Your task to perform on an android device: Do I have any events tomorrow? Image 0: 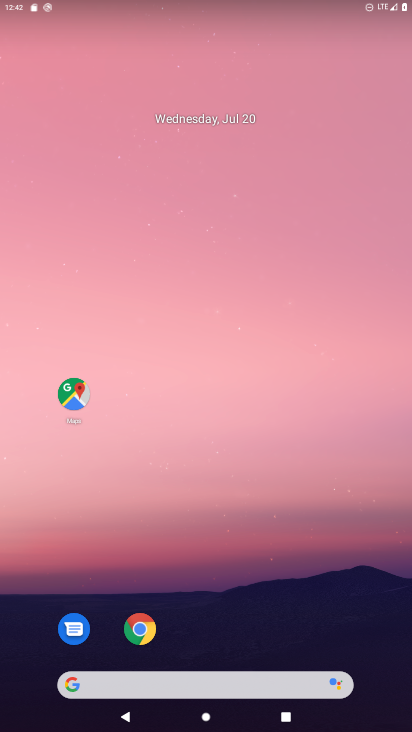
Step 0: drag from (188, 640) to (184, 204)
Your task to perform on an android device: Do I have any events tomorrow? Image 1: 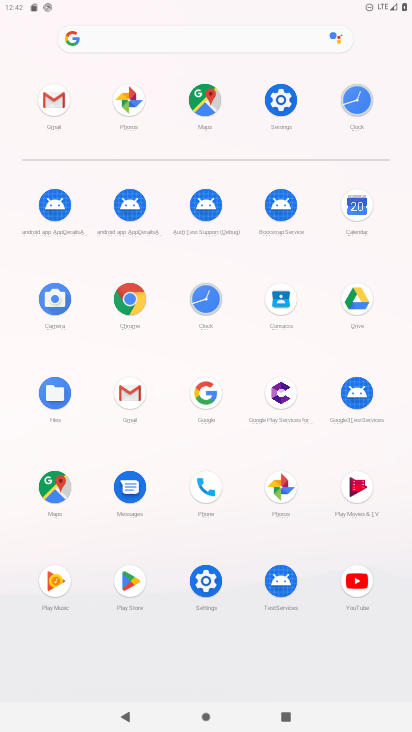
Step 1: click (353, 220)
Your task to perform on an android device: Do I have any events tomorrow? Image 2: 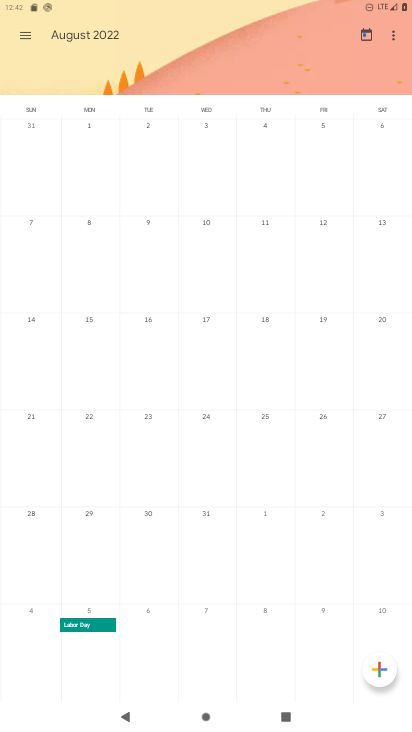
Step 2: click (25, 34)
Your task to perform on an android device: Do I have any events tomorrow? Image 3: 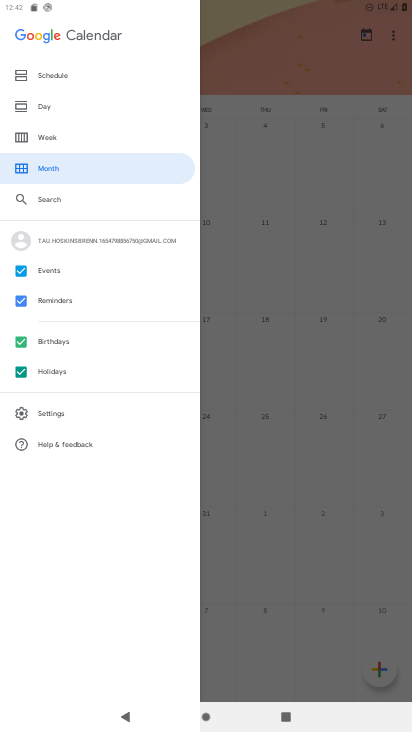
Step 3: click (42, 77)
Your task to perform on an android device: Do I have any events tomorrow? Image 4: 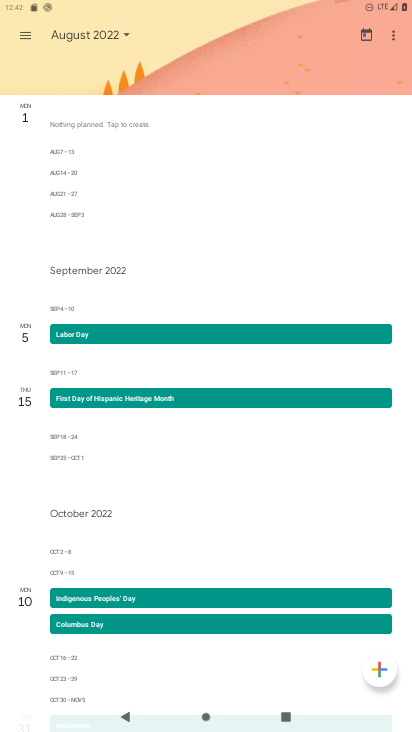
Step 4: click (70, 37)
Your task to perform on an android device: Do I have any events tomorrow? Image 5: 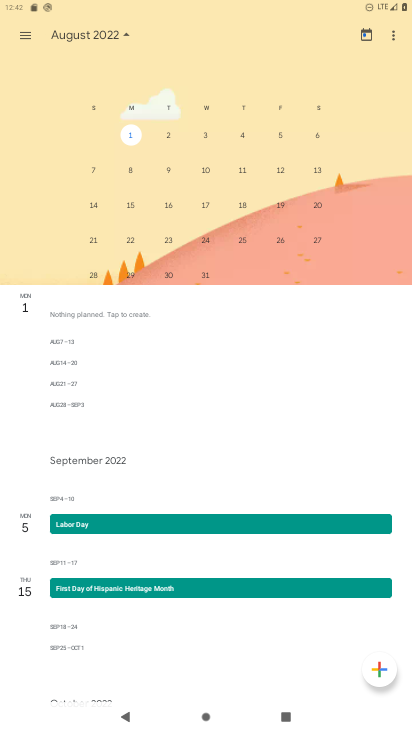
Step 5: drag from (101, 138) to (387, 139)
Your task to perform on an android device: Do I have any events tomorrow? Image 6: 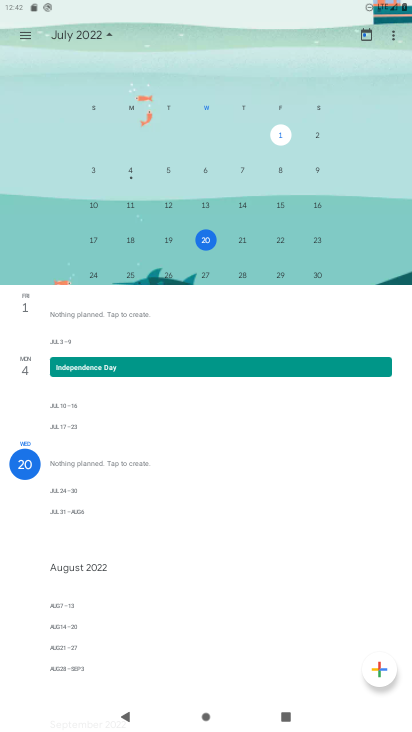
Step 6: click (246, 243)
Your task to perform on an android device: Do I have any events tomorrow? Image 7: 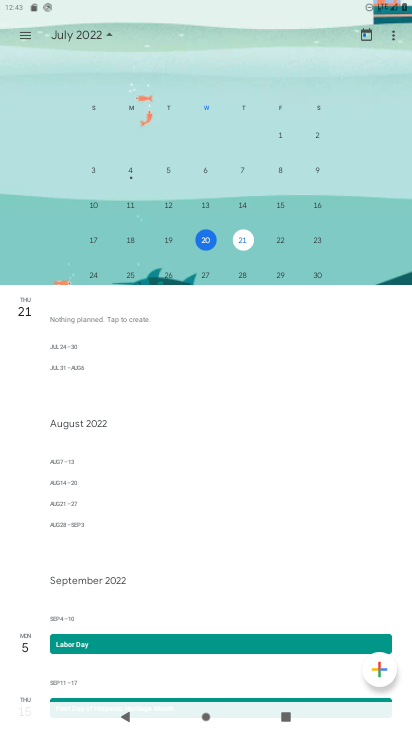
Step 7: task complete